Your task to perform on an android device: What's the weather going to be this weekend? Image 0: 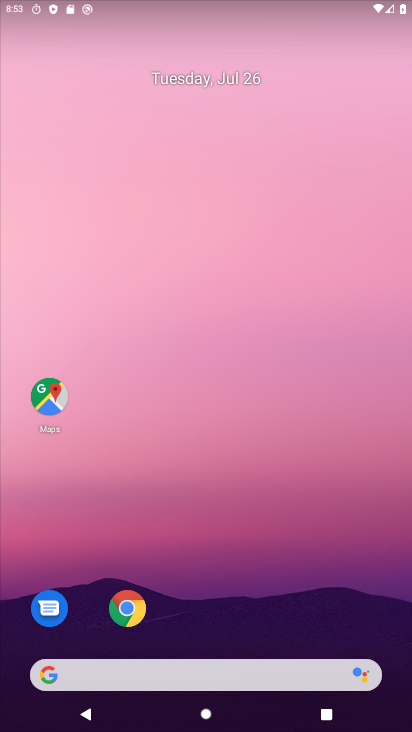
Step 0: click (159, 685)
Your task to perform on an android device: What's the weather going to be this weekend? Image 1: 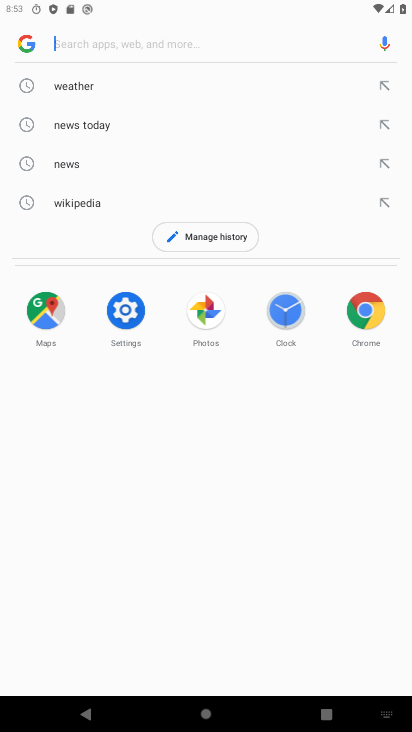
Step 1: click (135, 79)
Your task to perform on an android device: What's the weather going to be this weekend? Image 2: 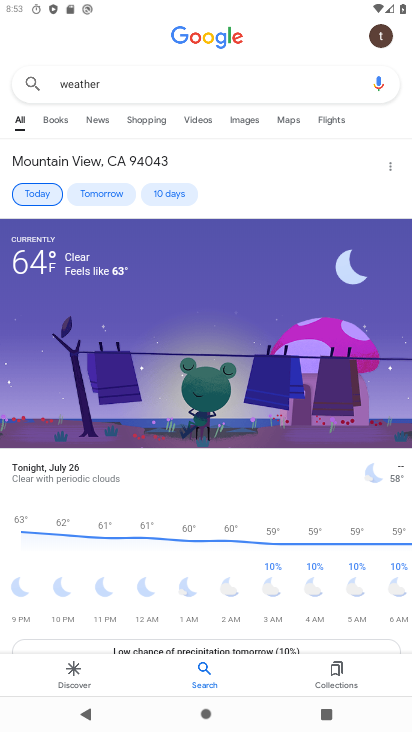
Step 2: click (158, 194)
Your task to perform on an android device: What's the weather going to be this weekend? Image 3: 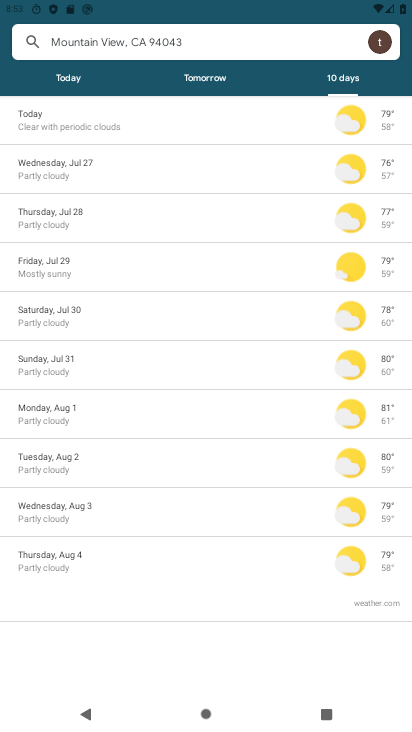
Step 3: click (119, 316)
Your task to perform on an android device: What's the weather going to be this weekend? Image 4: 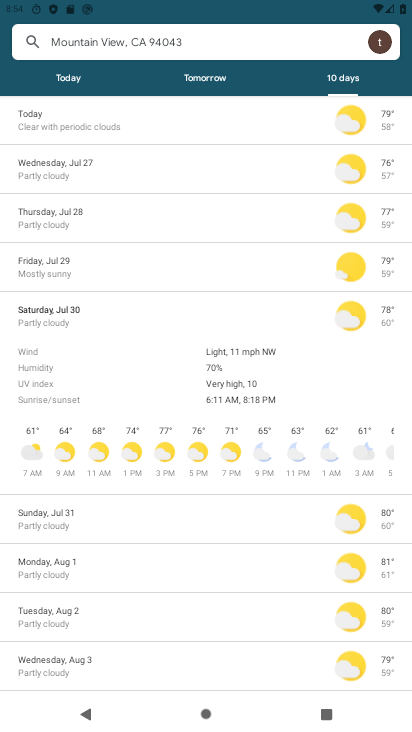
Step 4: task complete